Your task to perform on an android device: check out phone information Image 0: 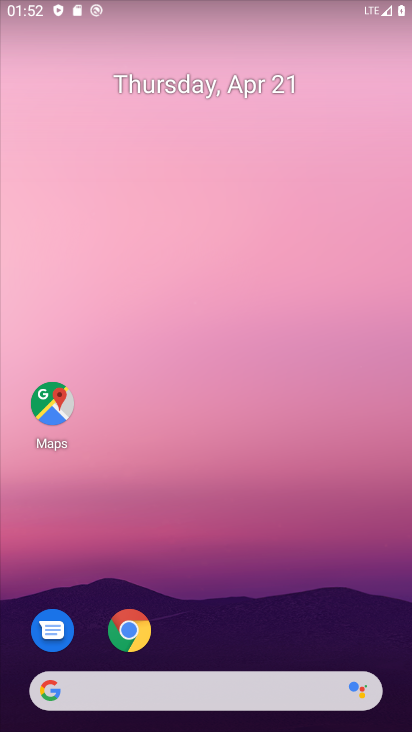
Step 0: drag from (201, 632) to (249, 275)
Your task to perform on an android device: check out phone information Image 1: 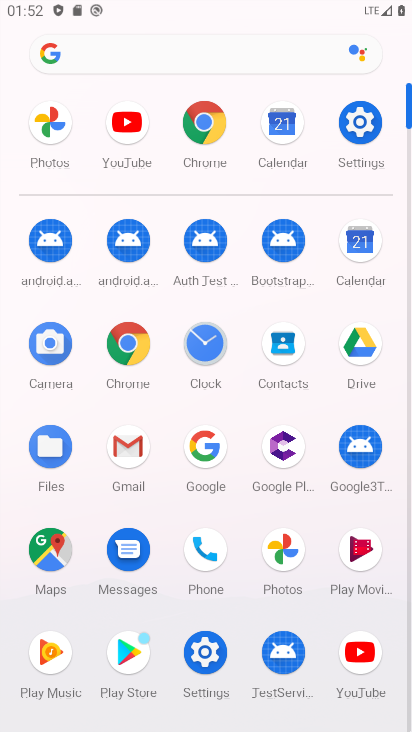
Step 1: click (375, 137)
Your task to perform on an android device: check out phone information Image 2: 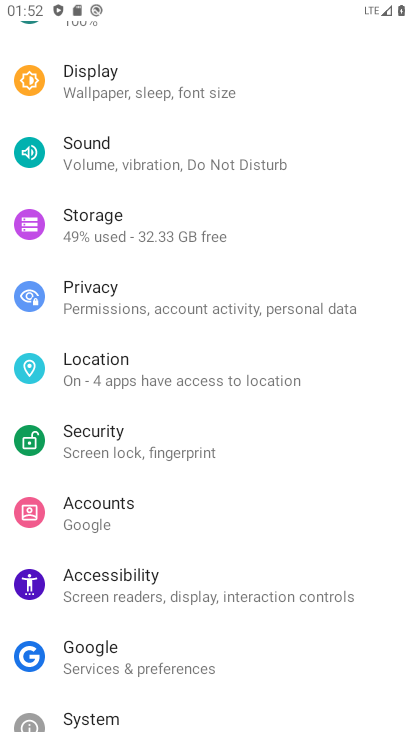
Step 2: drag from (156, 553) to (186, 258)
Your task to perform on an android device: check out phone information Image 3: 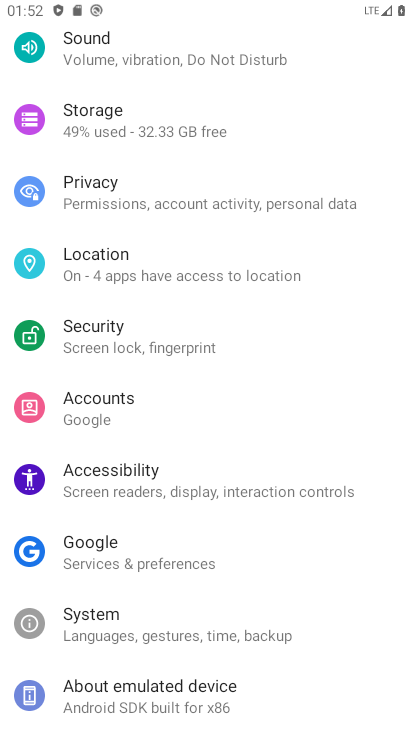
Step 3: click (166, 685)
Your task to perform on an android device: check out phone information Image 4: 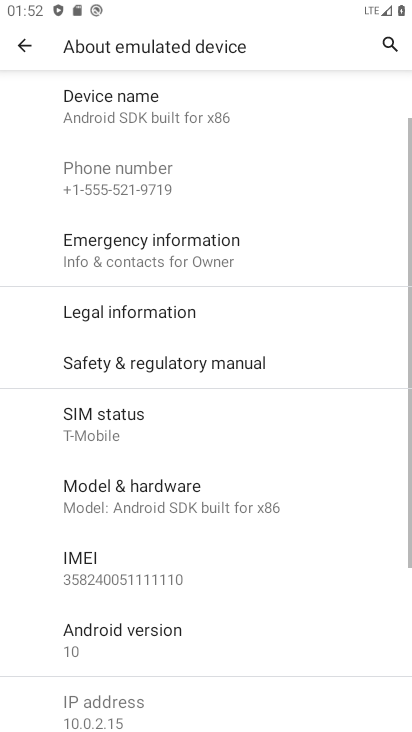
Step 4: task complete